Your task to perform on an android device: What is the capital of China? Image 0: 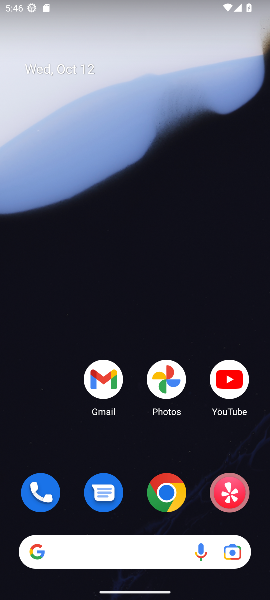
Step 0: click (170, 489)
Your task to perform on an android device: What is the capital of China? Image 1: 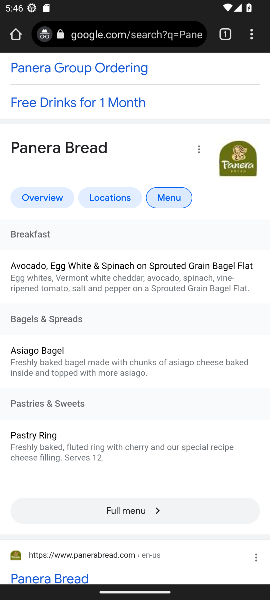
Step 1: click (112, 26)
Your task to perform on an android device: What is the capital of China? Image 2: 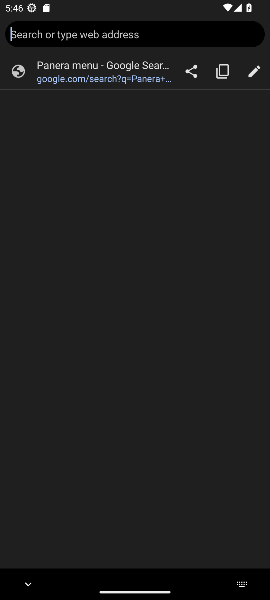
Step 2: type " capital of China"
Your task to perform on an android device: What is the capital of China? Image 3: 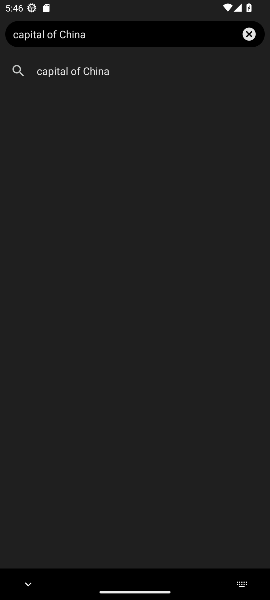
Step 3: click (59, 74)
Your task to perform on an android device: What is the capital of China? Image 4: 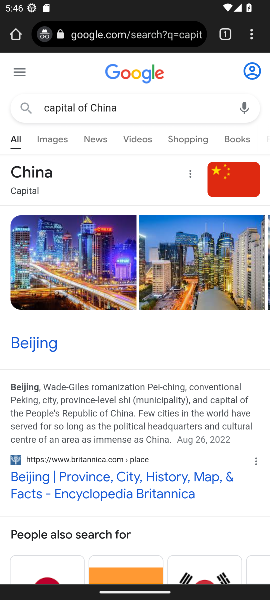
Step 4: click (22, 349)
Your task to perform on an android device: What is the capital of China? Image 5: 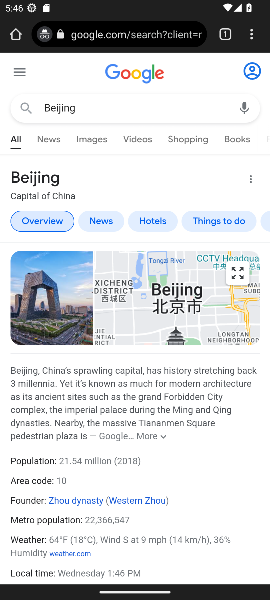
Step 5: task complete